Your task to perform on an android device: open app "DoorDash - Dasher" (install if not already installed) and go to login screen Image 0: 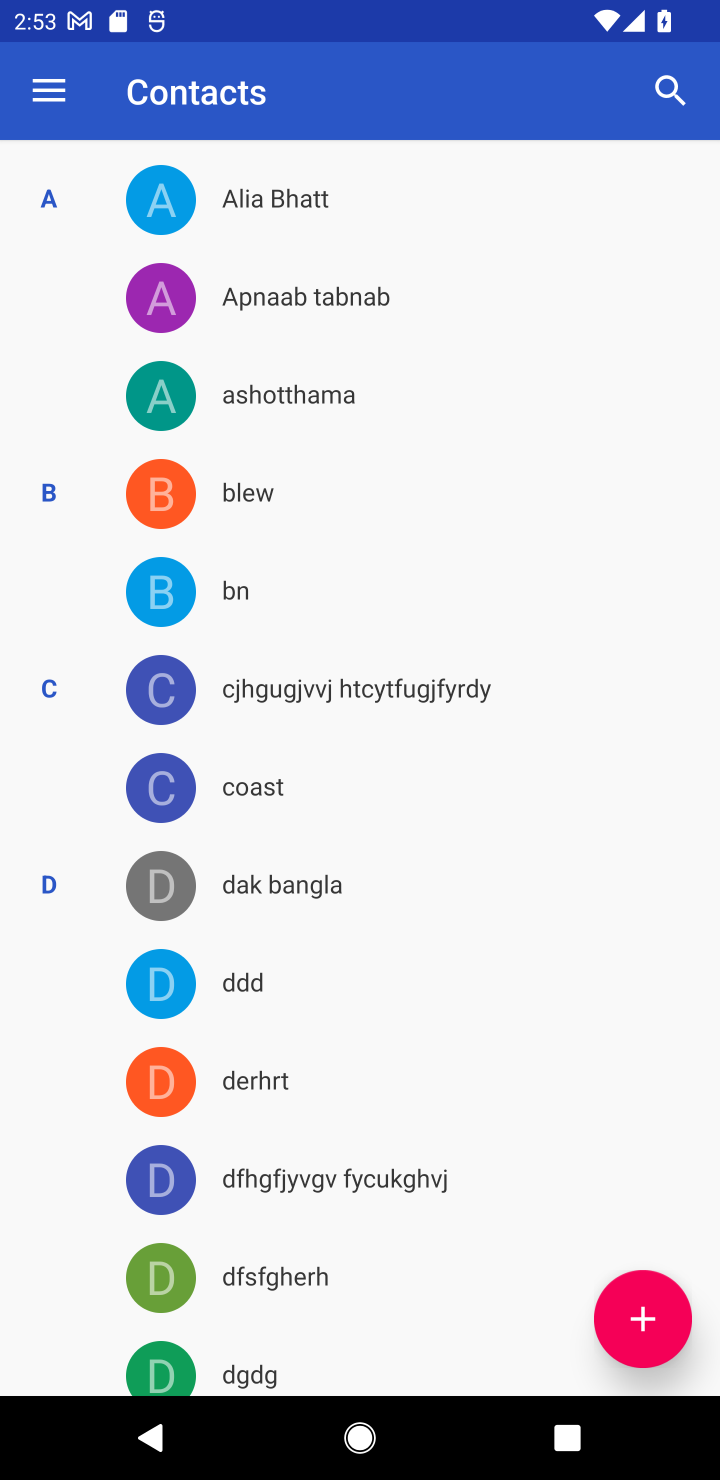
Step 0: press home button
Your task to perform on an android device: open app "DoorDash - Dasher" (install if not already installed) and go to login screen Image 1: 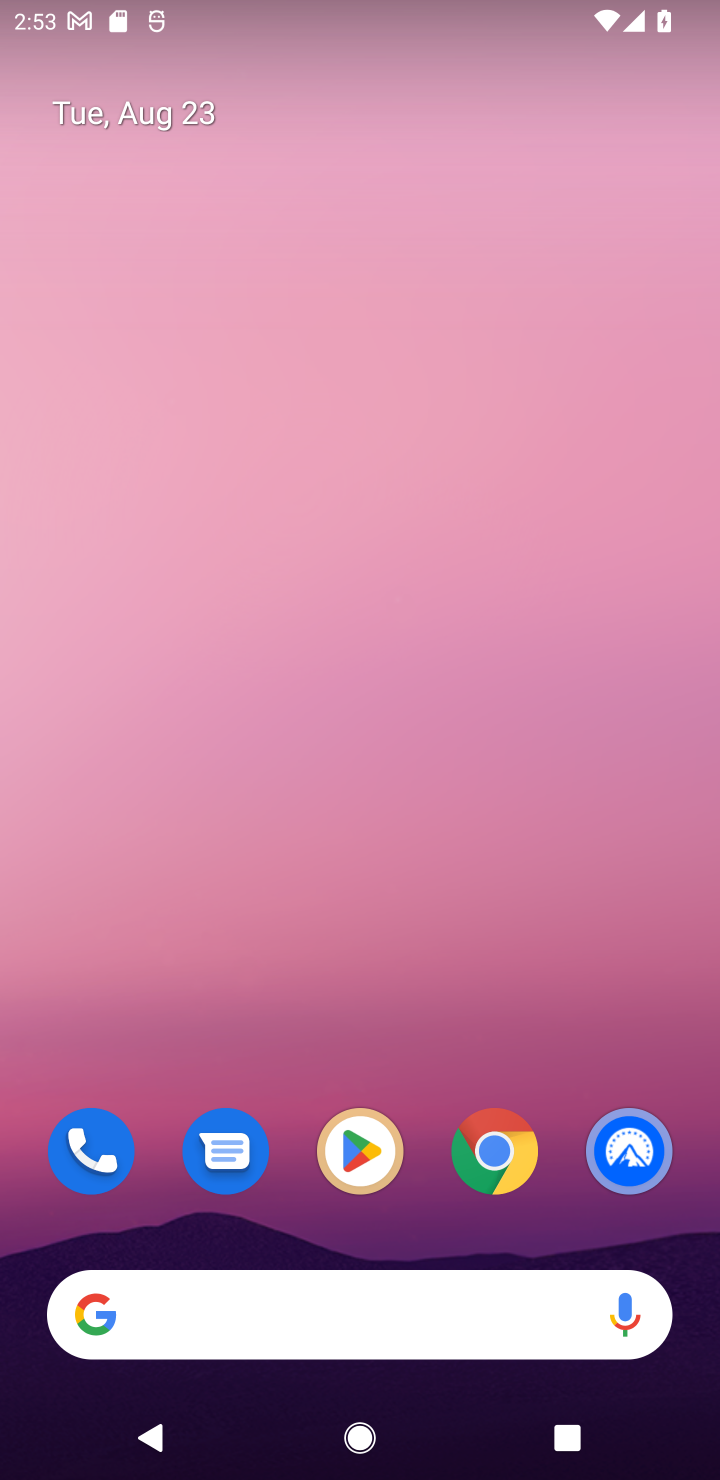
Step 1: click (344, 1157)
Your task to perform on an android device: open app "DoorDash - Dasher" (install if not already installed) and go to login screen Image 2: 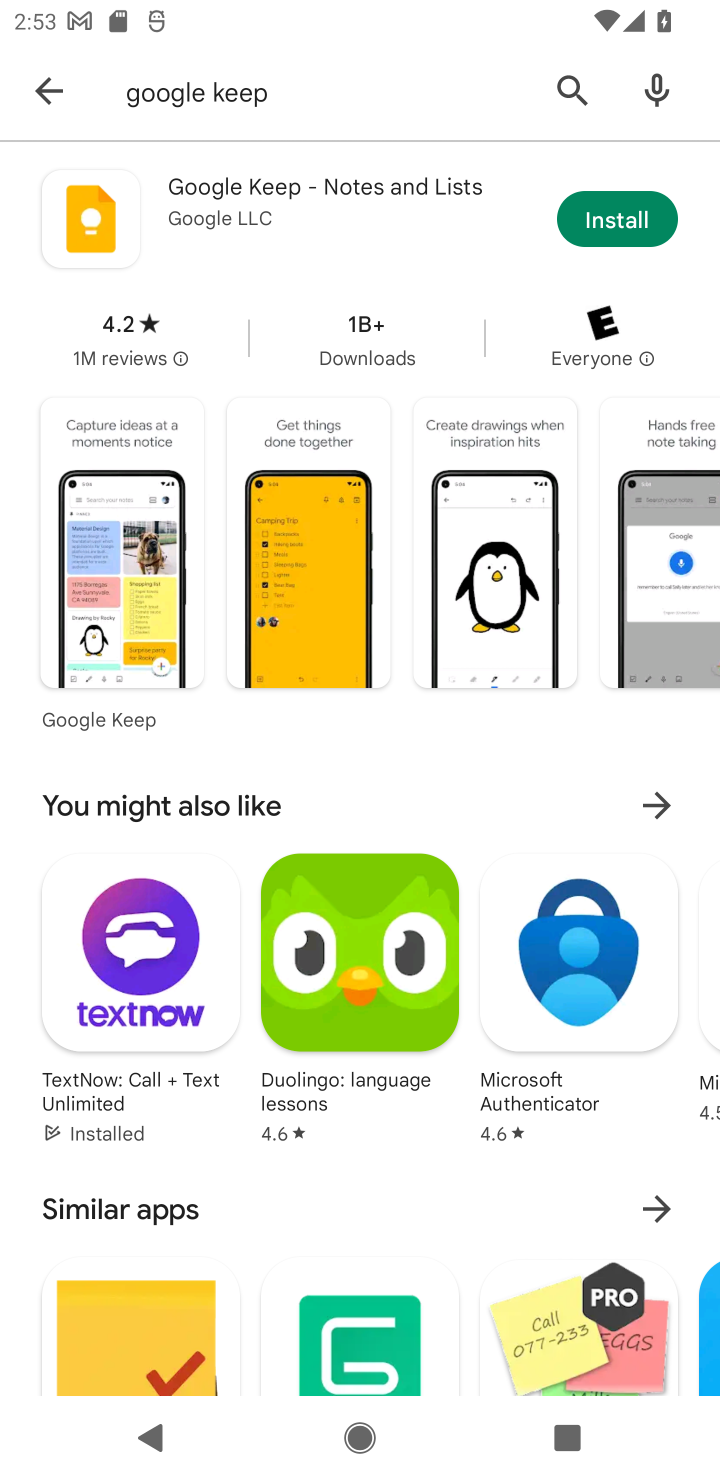
Step 2: click (575, 86)
Your task to perform on an android device: open app "DoorDash - Dasher" (install if not already installed) and go to login screen Image 3: 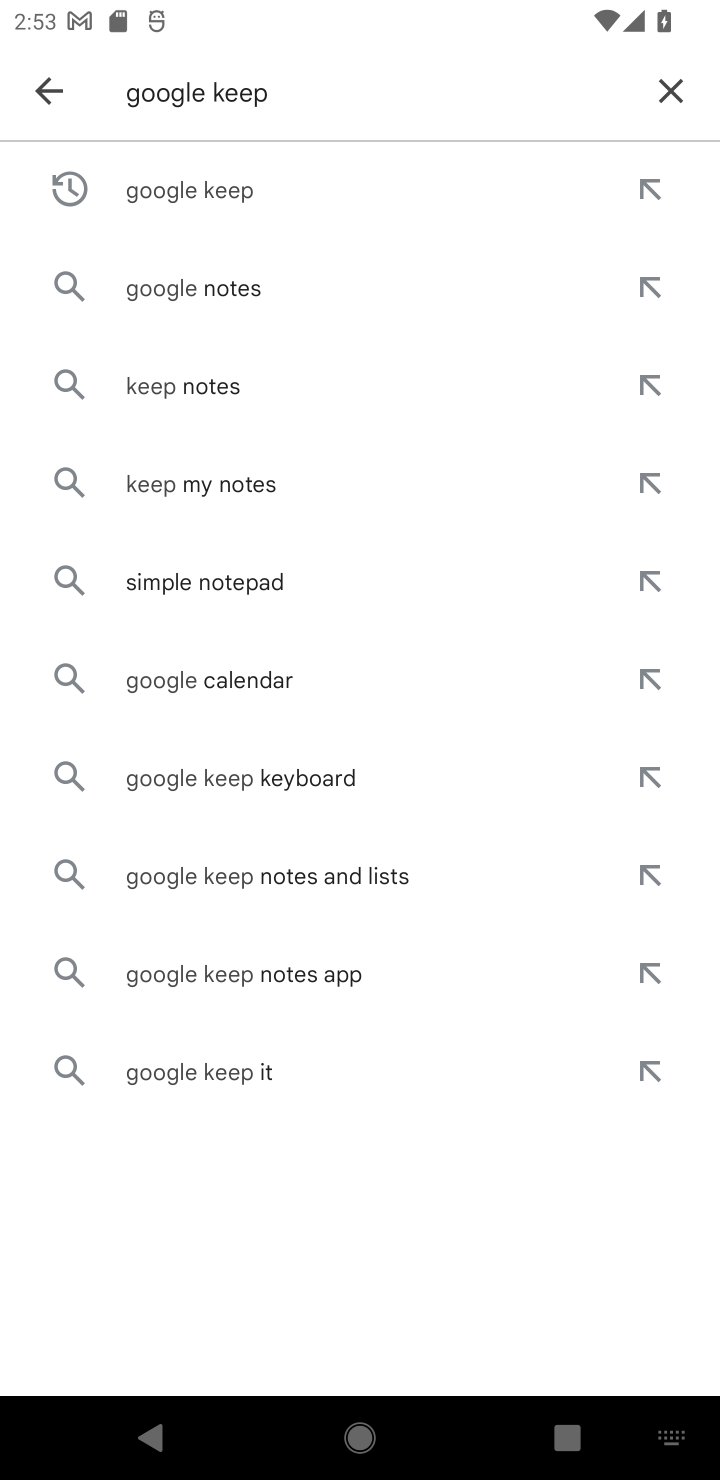
Step 3: click (665, 69)
Your task to perform on an android device: open app "DoorDash - Dasher" (install if not already installed) and go to login screen Image 4: 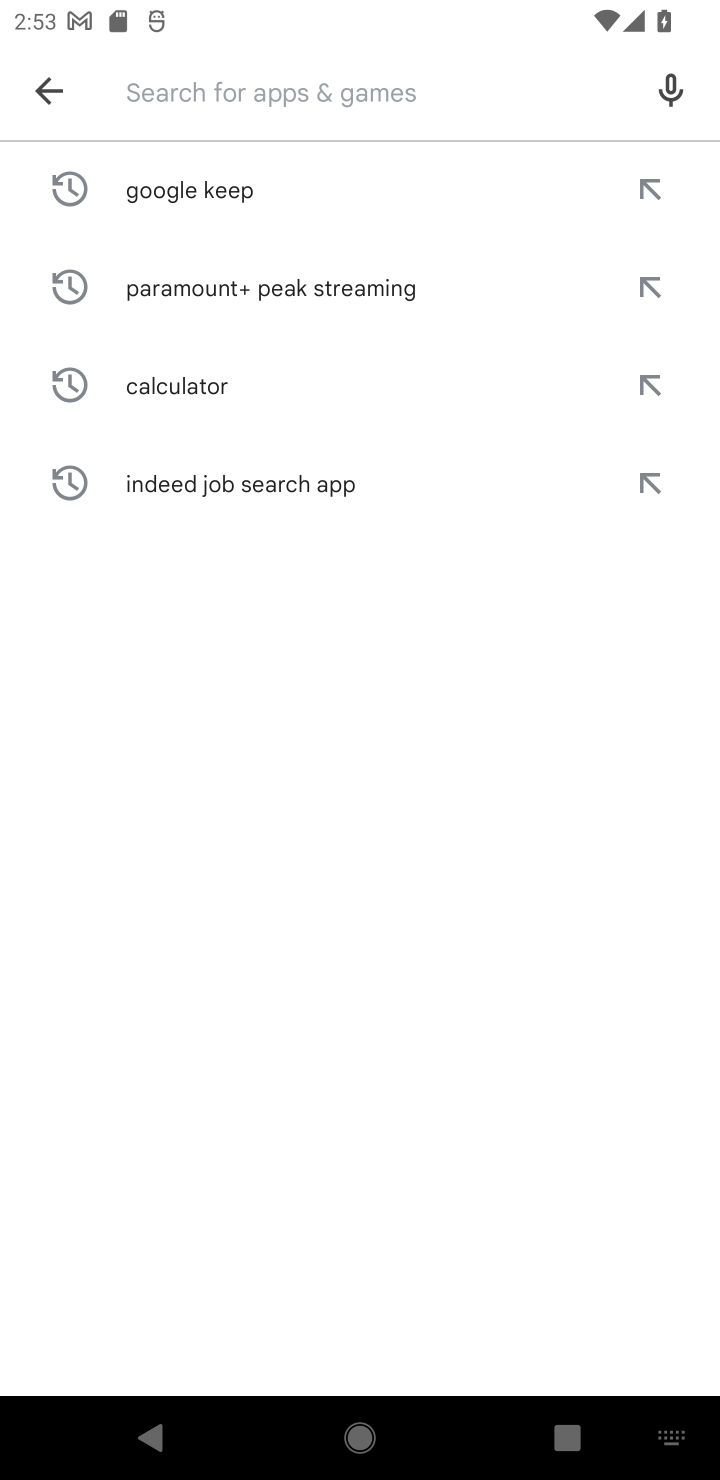
Step 4: type "DoorDash - Dasher"
Your task to perform on an android device: open app "DoorDash - Dasher" (install if not already installed) and go to login screen Image 5: 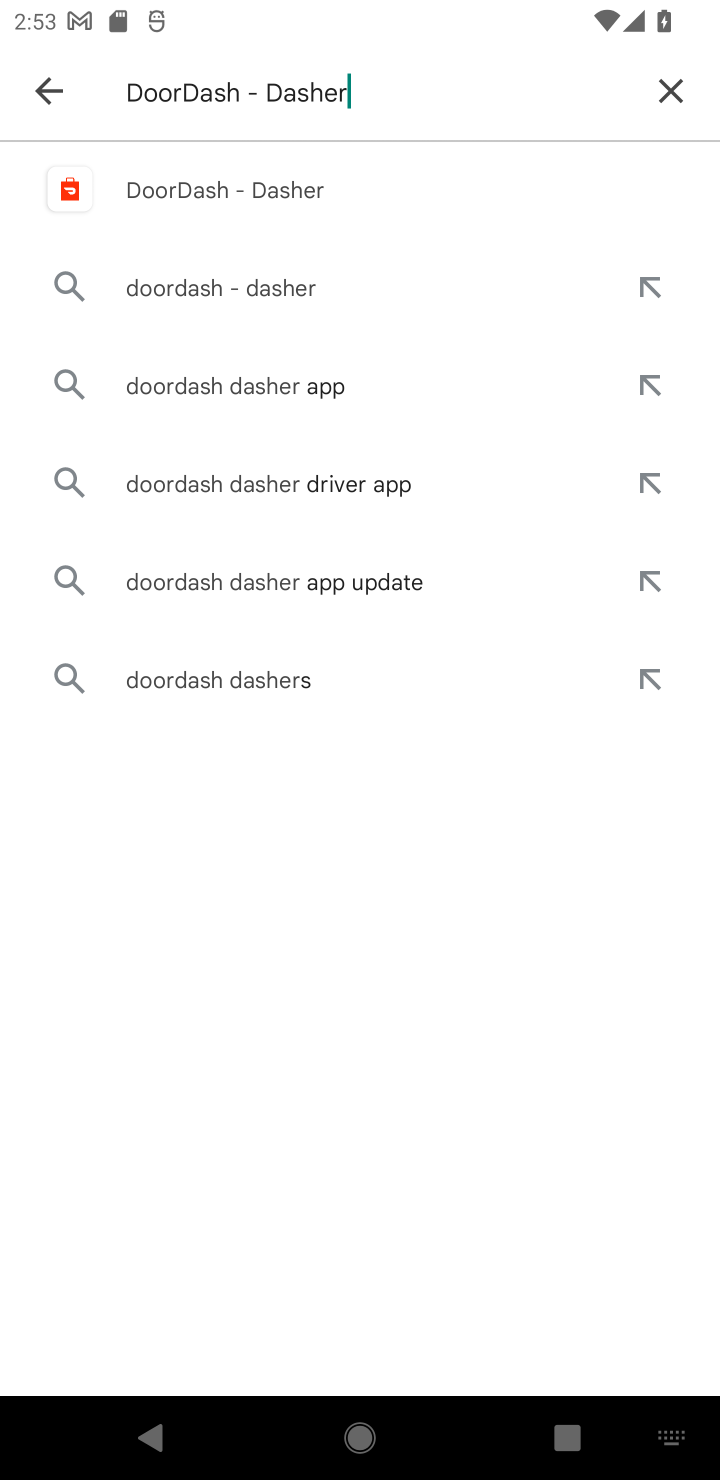
Step 5: click (263, 175)
Your task to perform on an android device: open app "DoorDash - Dasher" (install if not already installed) and go to login screen Image 6: 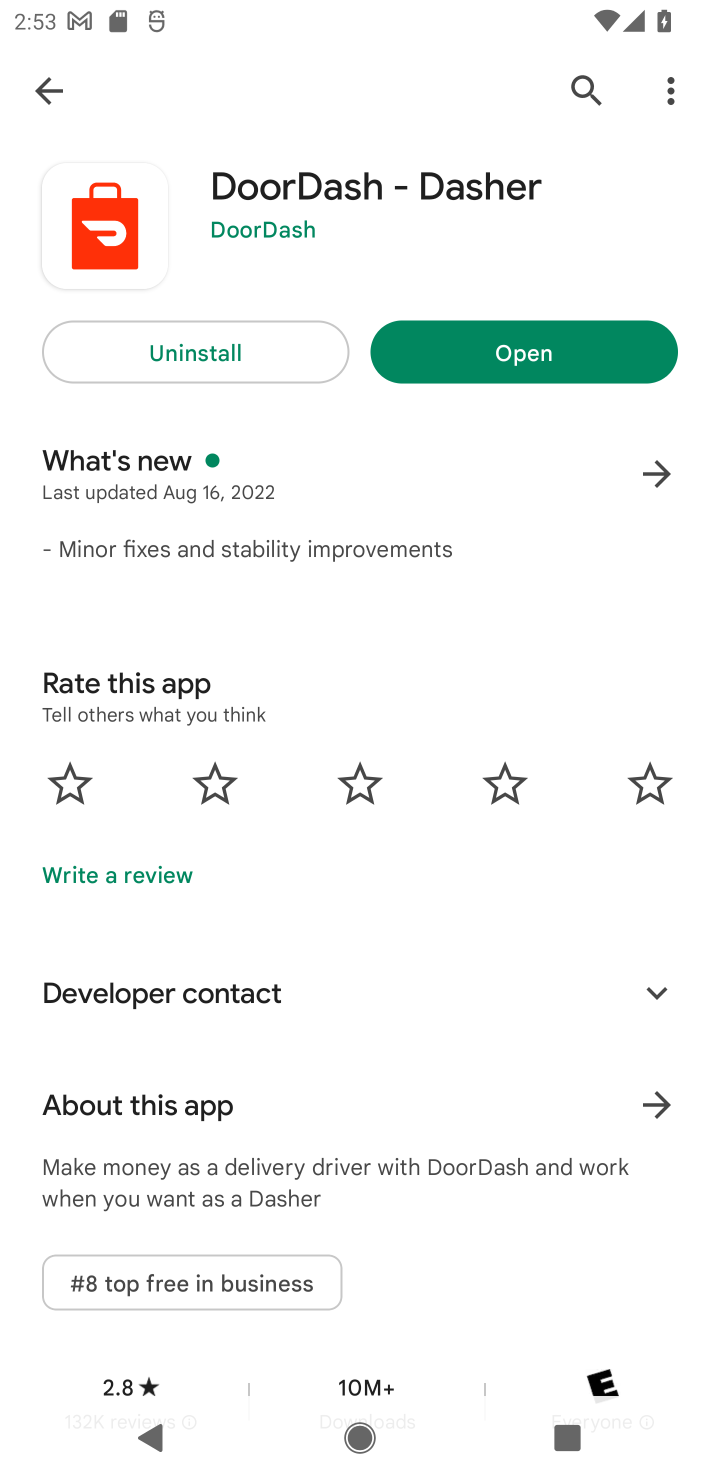
Step 6: click (546, 343)
Your task to perform on an android device: open app "DoorDash - Dasher" (install if not already installed) and go to login screen Image 7: 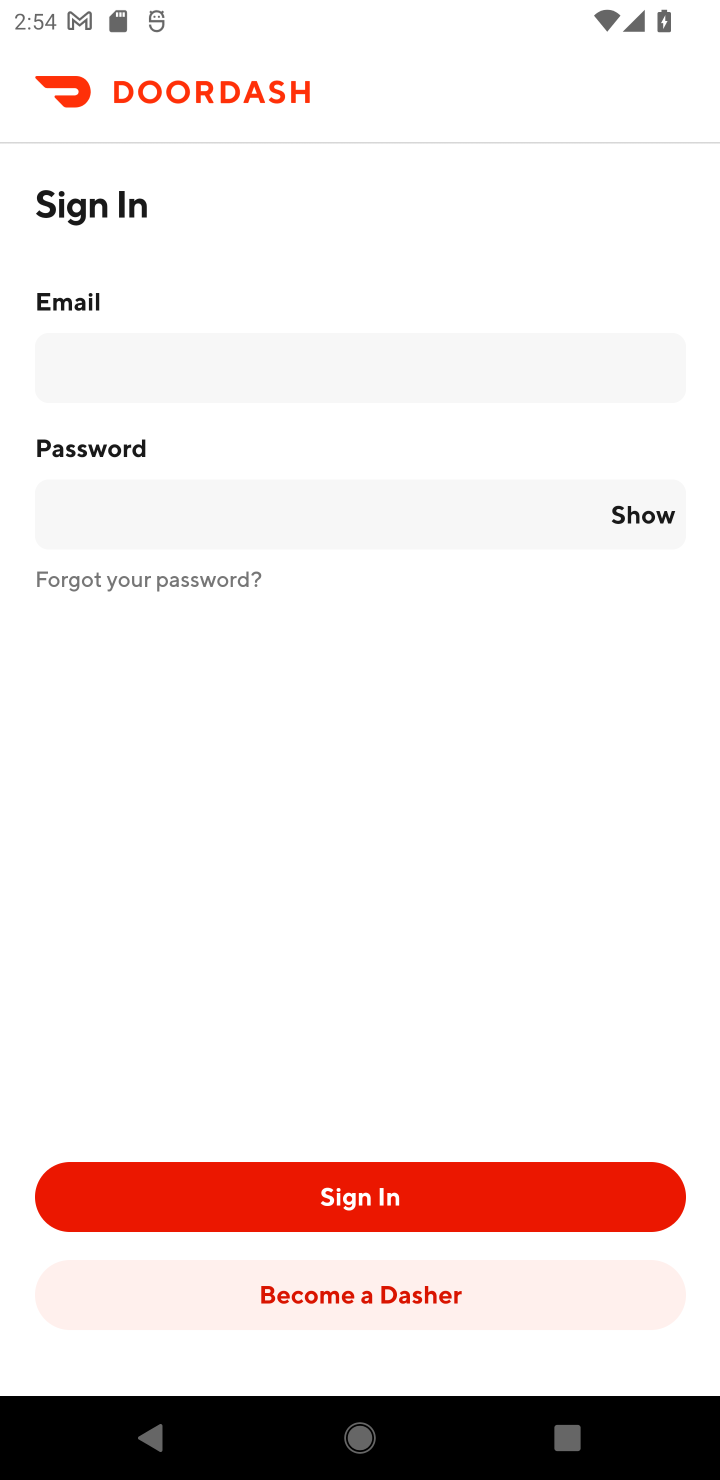
Step 7: task complete